Your task to perform on an android device: delete browsing data in the chrome app Image 0: 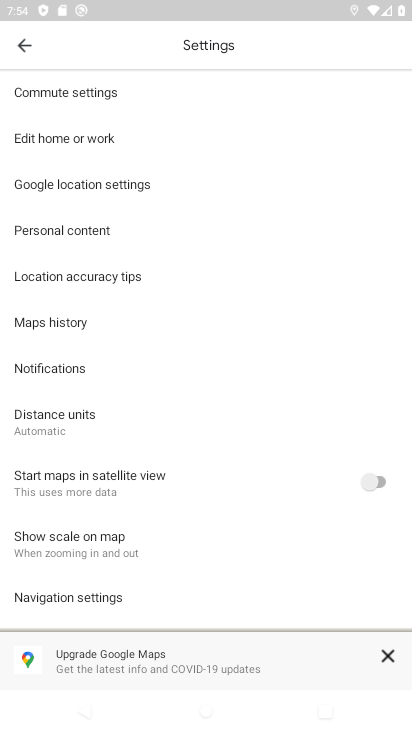
Step 0: drag from (195, 610) to (183, 178)
Your task to perform on an android device: delete browsing data in the chrome app Image 1: 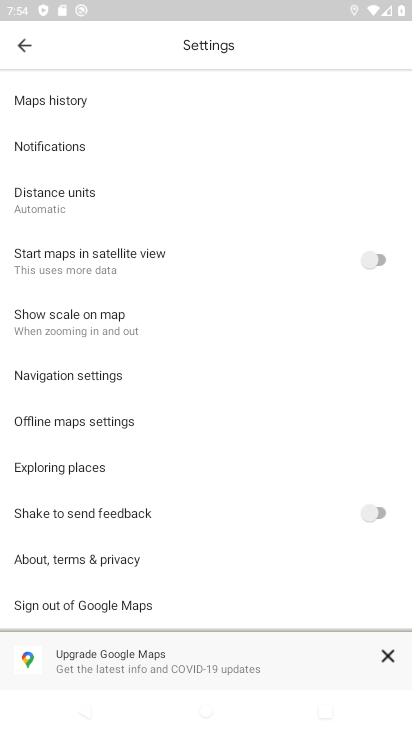
Step 1: drag from (242, 603) to (246, 318)
Your task to perform on an android device: delete browsing data in the chrome app Image 2: 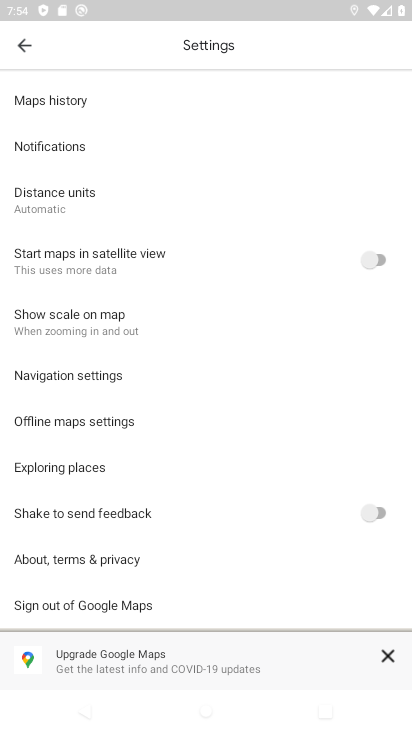
Step 2: press home button
Your task to perform on an android device: delete browsing data in the chrome app Image 3: 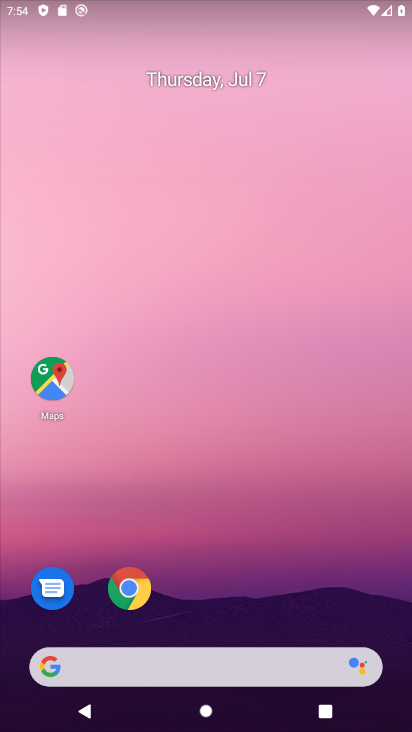
Step 3: click (121, 588)
Your task to perform on an android device: delete browsing data in the chrome app Image 4: 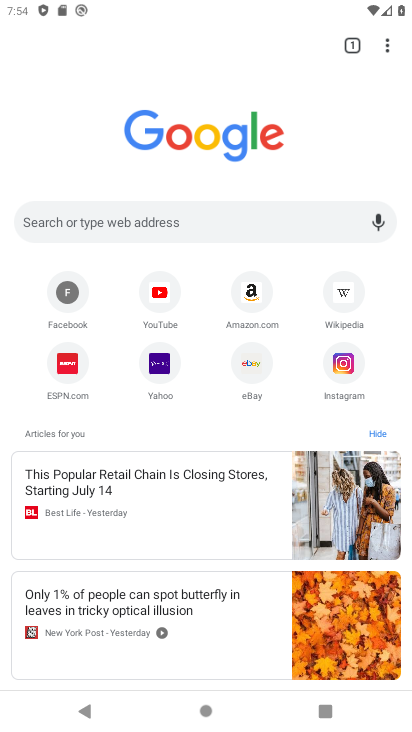
Step 4: click (388, 44)
Your task to perform on an android device: delete browsing data in the chrome app Image 5: 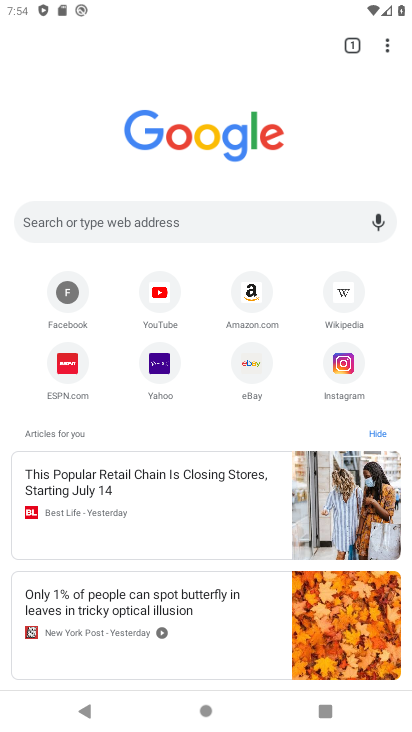
Step 5: click (383, 44)
Your task to perform on an android device: delete browsing data in the chrome app Image 6: 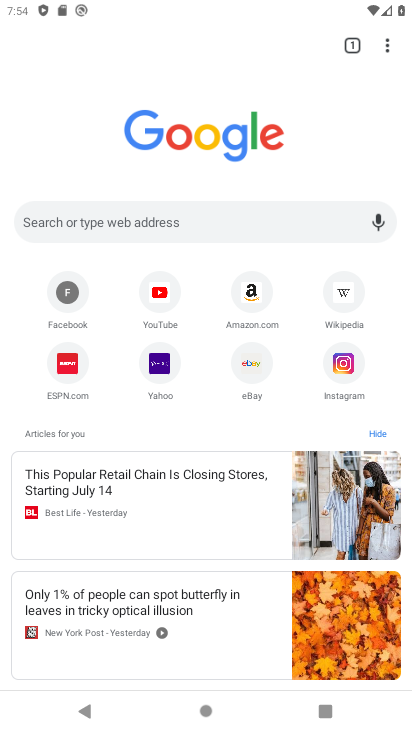
Step 6: click (384, 52)
Your task to perform on an android device: delete browsing data in the chrome app Image 7: 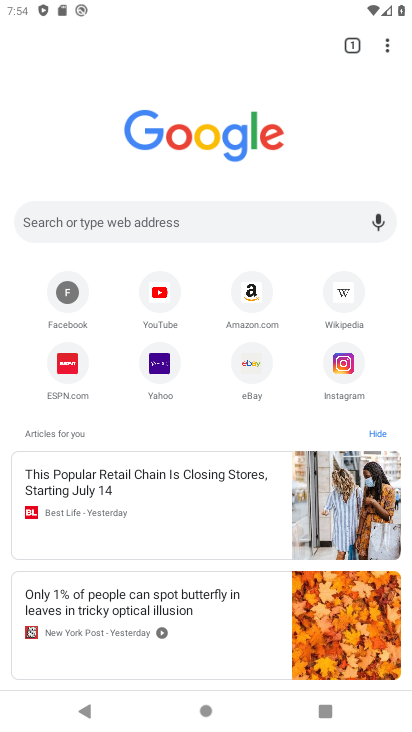
Step 7: click (388, 39)
Your task to perform on an android device: delete browsing data in the chrome app Image 8: 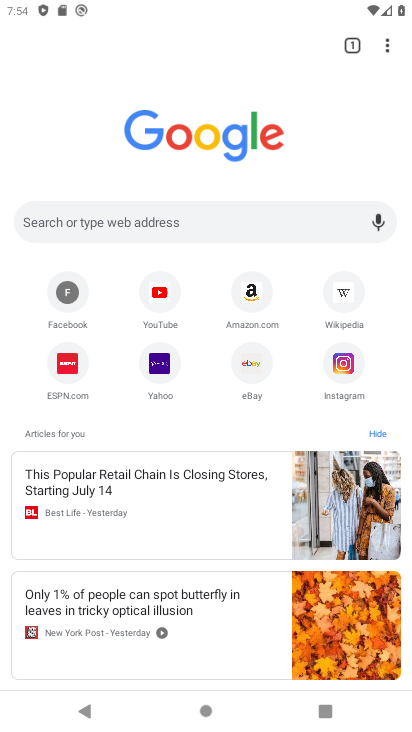
Step 8: task complete